Your task to perform on an android device: turn off translation in the chrome app Image 0: 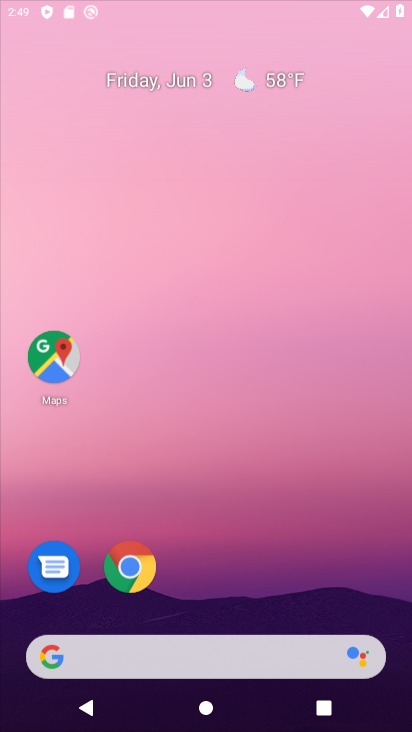
Step 0: drag from (159, 431) to (181, 313)
Your task to perform on an android device: turn off translation in the chrome app Image 1: 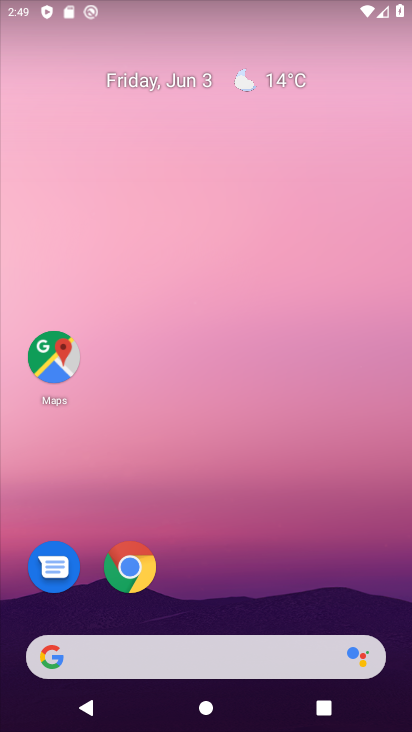
Step 1: drag from (271, 97) to (301, 4)
Your task to perform on an android device: turn off translation in the chrome app Image 2: 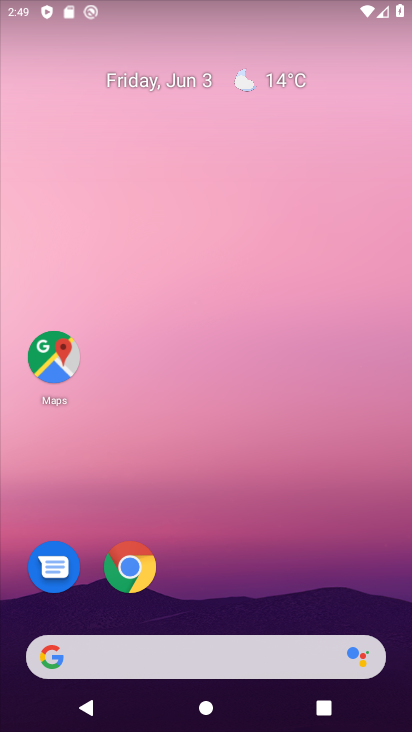
Step 2: click (284, 85)
Your task to perform on an android device: turn off translation in the chrome app Image 3: 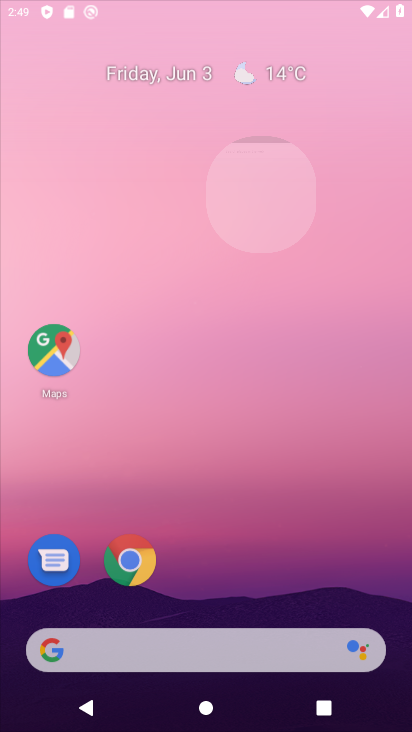
Step 3: click (130, 567)
Your task to perform on an android device: turn off translation in the chrome app Image 4: 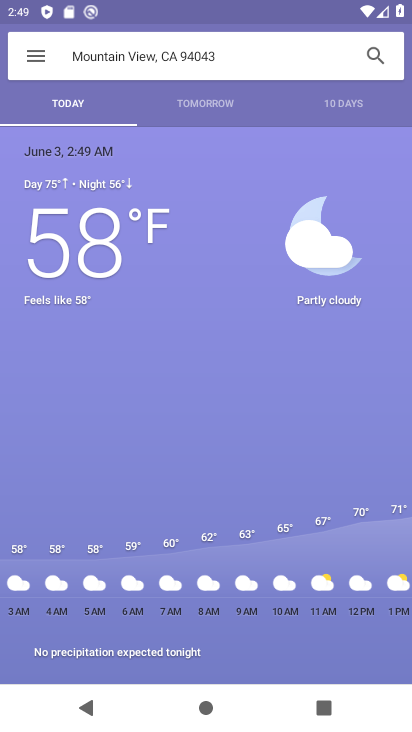
Step 4: press home button
Your task to perform on an android device: turn off translation in the chrome app Image 5: 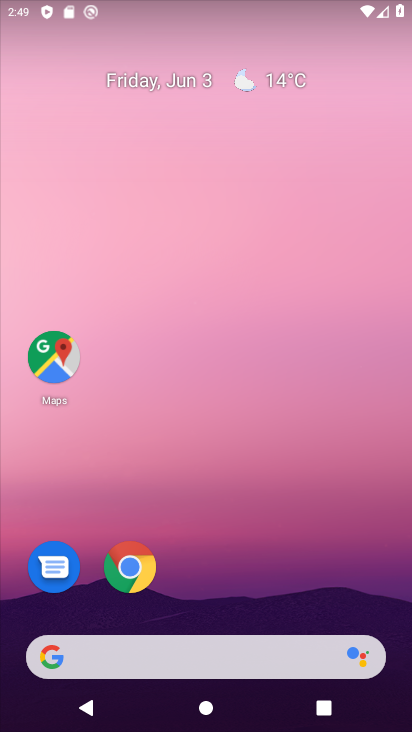
Step 5: click (138, 556)
Your task to perform on an android device: turn off translation in the chrome app Image 6: 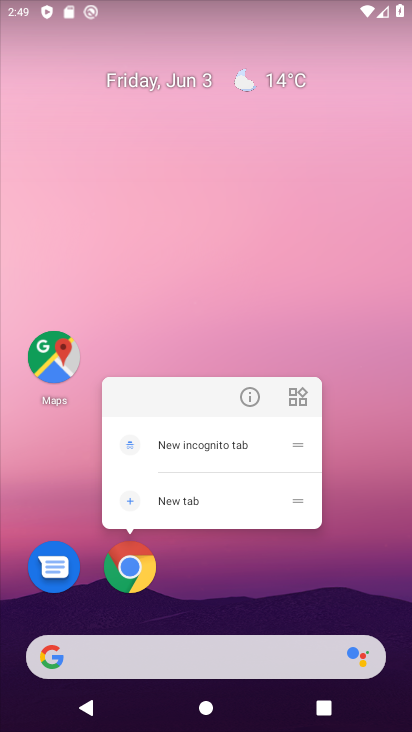
Step 6: click (136, 573)
Your task to perform on an android device: turn off translation in the chrome app Image 7: 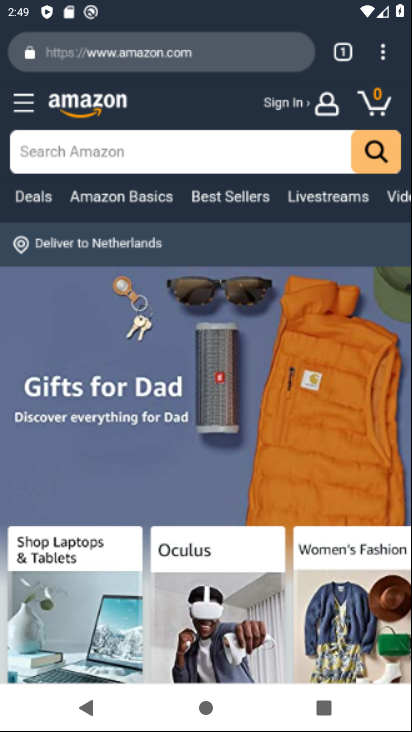
Step 7: click (140, 577)
Your task to perform on an android device: turn off translation in the chrome app Image 8: 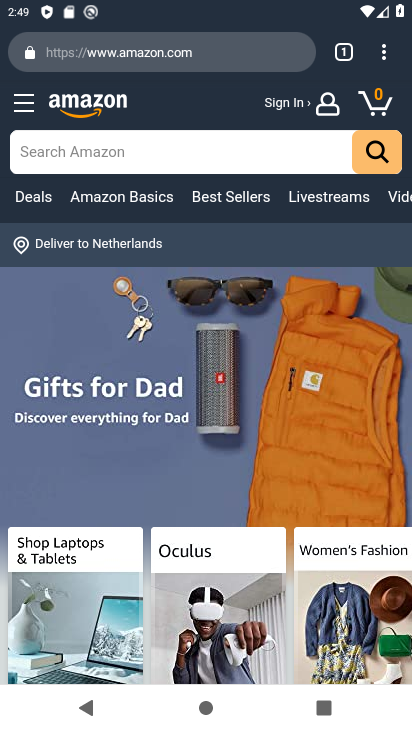
Step 8: click (383, 59)
Your task to perform on an android device: turn off translation in the chrome app Image 9: 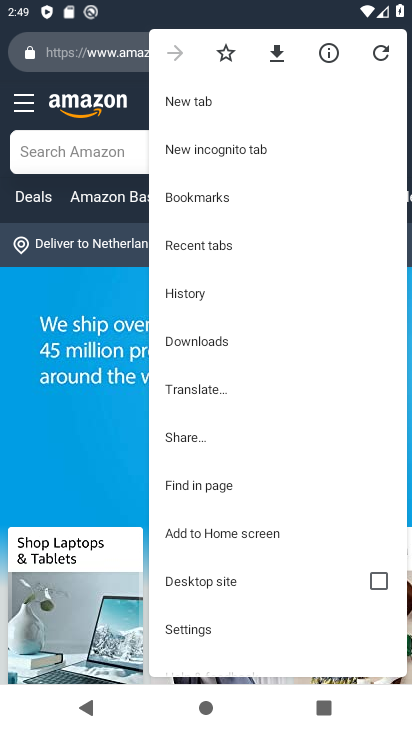
Step 9: click (197, 630)
Your task to perform on an android device: turn off translation in the chrome app Image 10: 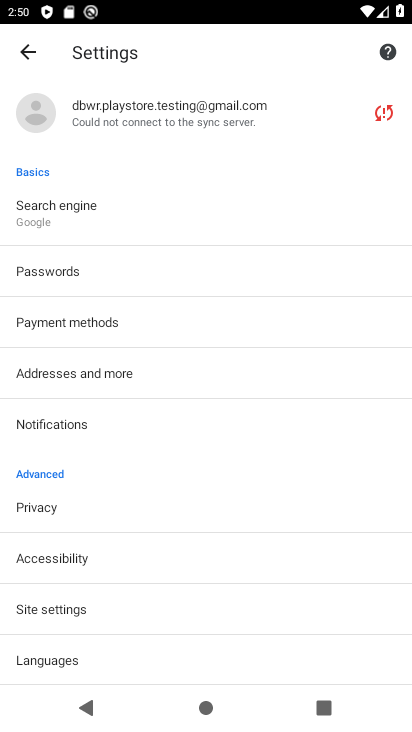
Step 10: click (50, 666)
Your task to perform on an android device: turn off translation in the chrome app Image 11: 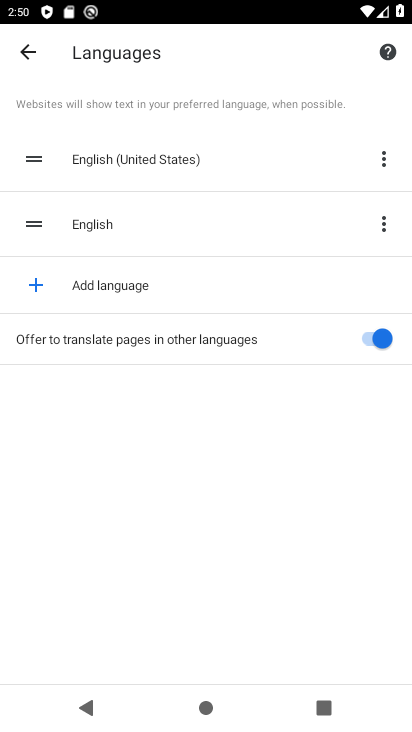
Step 11: click (342, 344)
Your task to perform on an android device: turn off translation in the chrome app Image 12: 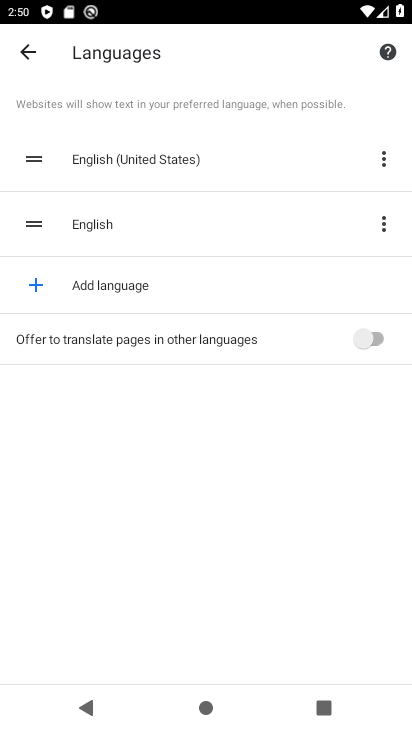
Step 12: task complete